Your task to perform on an android device: Open Chrome and go to settings Image 0: 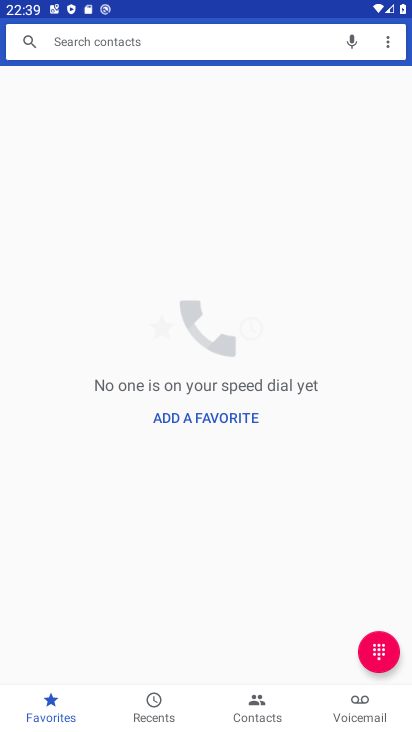
Step 0: drag from (224, 686) to (198, 325)
Your task to perform on an android device: Open Chrome and go to settings Image 1: 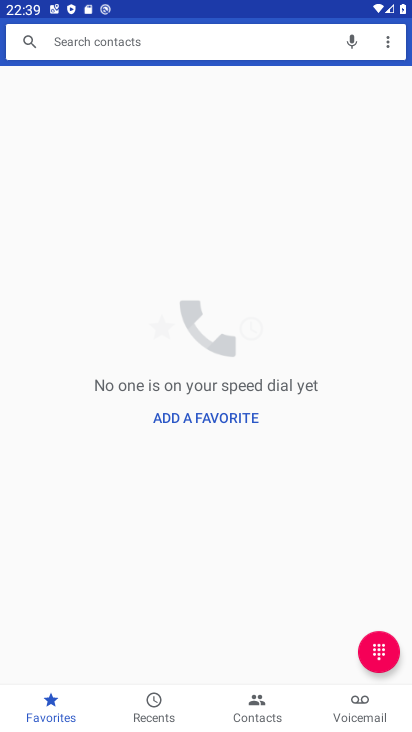
Step 1: press back button
Your task to perform on an android device: Open Chrome and go to settings Image 2: 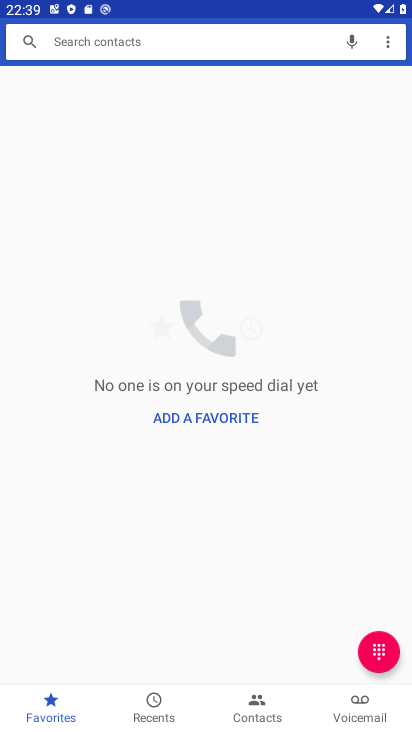
Step 2: press back button
Your task to perform on an android device: Open Chrome and go to settings Image 3: 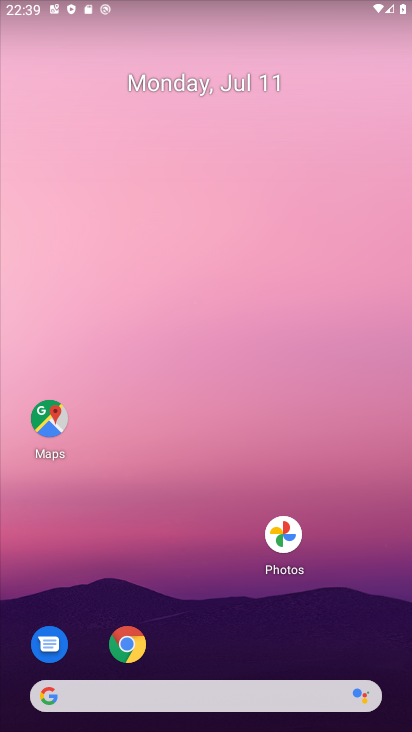
Step 3: drag from (269, 657) to (178, 175)
Your task to perform on an android device: Open Chrome and go to settings Image 4: 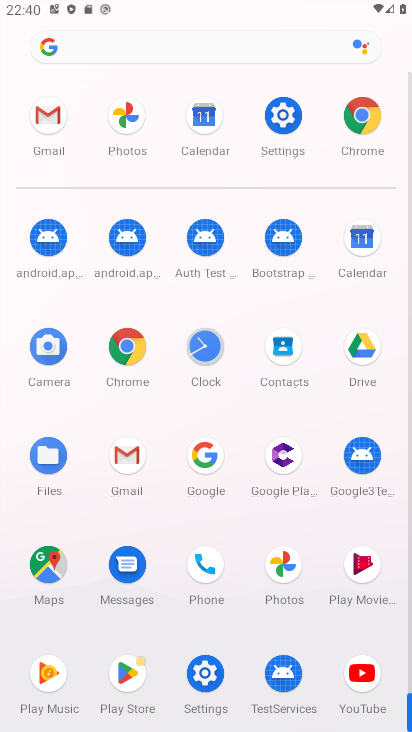
Step 4: click (274, 119)
Your task to perform on an android device: Open Chrome and go to settings Image 5: 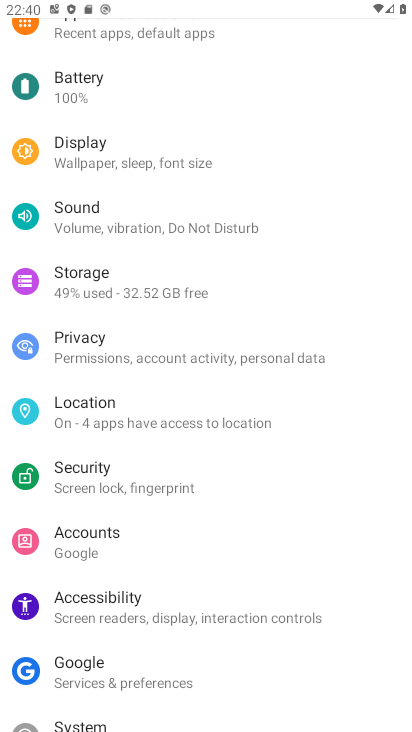
Step 5: drag from (139, 518) to (101, 165)
Your task to perform on an android device: Open Chrome and go to settings Image 6: 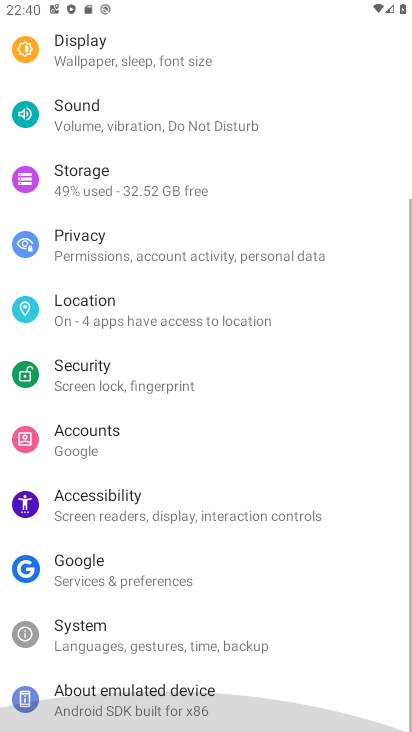
Step 6: drag from (202, 552) to (96, 99)
Your task to perform on an android device: Open Chrome and go to settings Image 7: 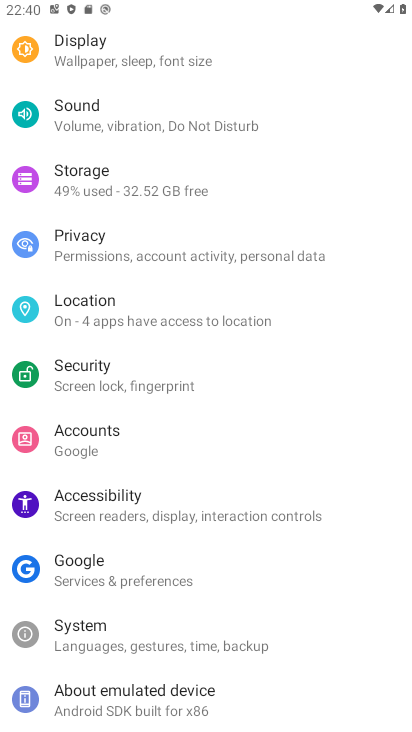
Step 7: drag from (177, 123) to (216, 548)
Your task to perform on an android device: Open Chrome and go to settings Image 8: 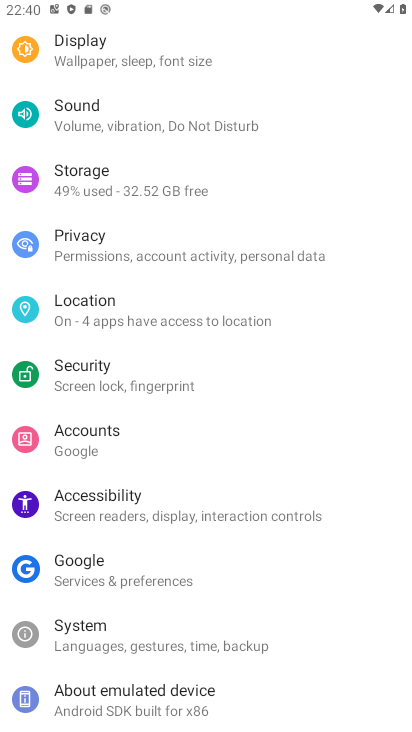
Step 8: drag from (85, 160) to (171, 518)
Your task to perform on an android device: Open Chrome and go to settings Image 9: 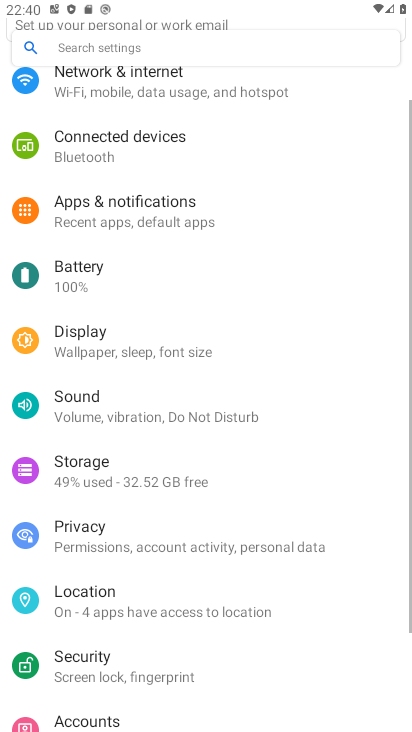
Step 9: drag from (107, 265) to (208, 731)
Your task to perform on an android device: Open Chrome and go to settings Image 10: 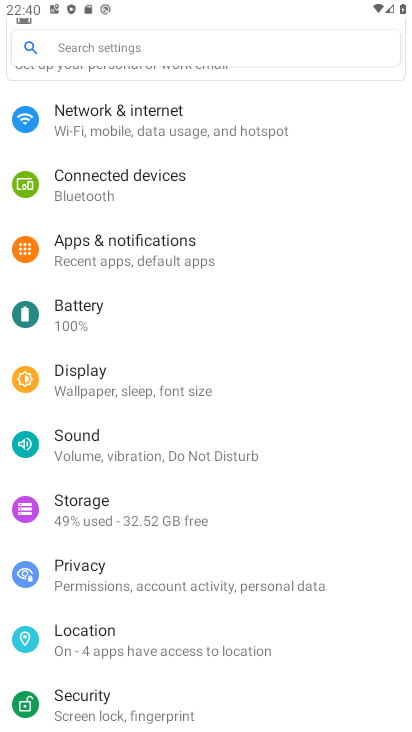
Step 10: press back button
Your task to perform on an android device: Open Chrome and go to settings Image 11: 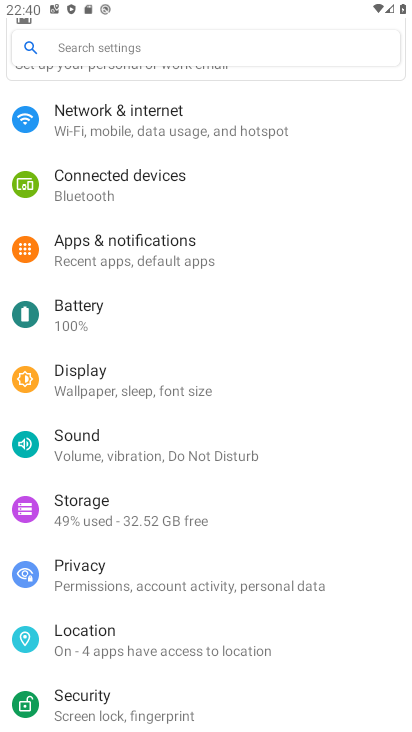
Step 11: press back button
Your task to perform on an android device: Open Chrome and go to settings Image 12: 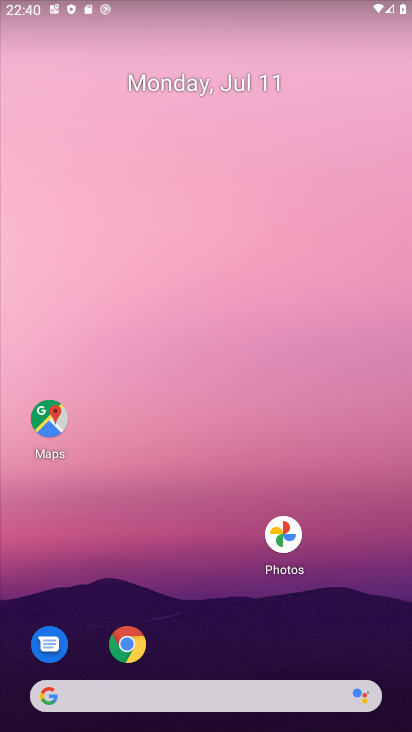
Step 12: drag from (172, 677) to (111, 111)
Your task to perform on an android device: Open Chrome and go to settings Image 13: 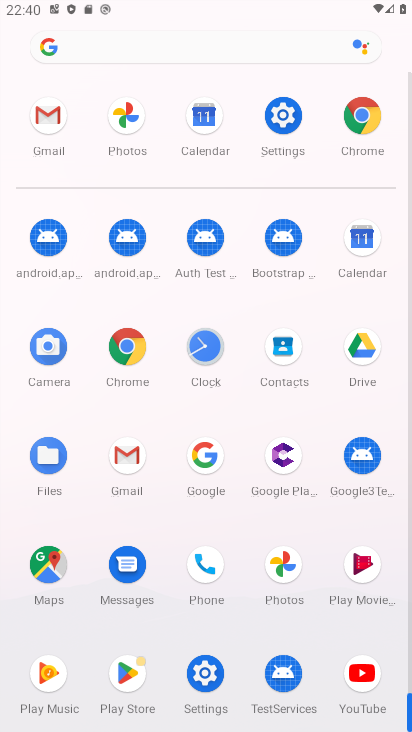
Step 13: click (206, 668)
Your task to perform on an android device: Open Chrome and go to settings Image 14: 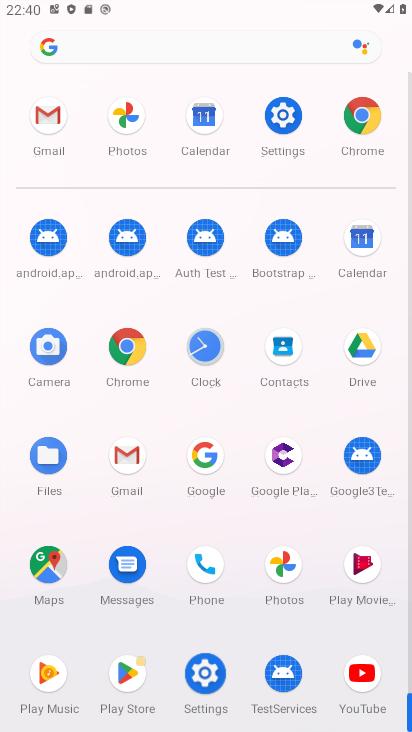
Step 14: click (206, 668)
Your task to perform on an android device: Open Chrome and go to settings Image 15: 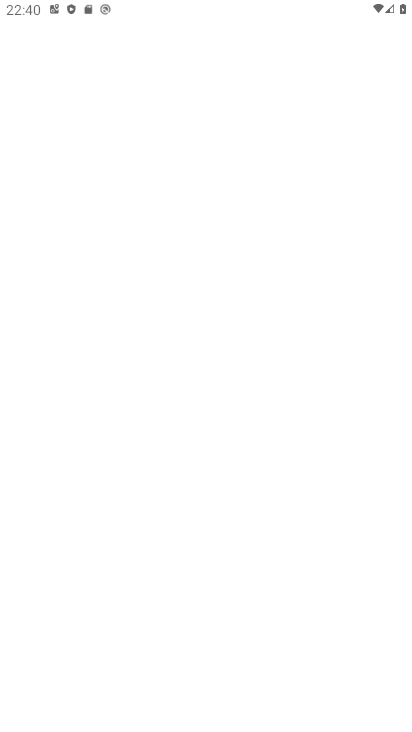
Step 15: click (206, 670)
Your task to perform on an android device: Open Chrome and go to settings Image 16: 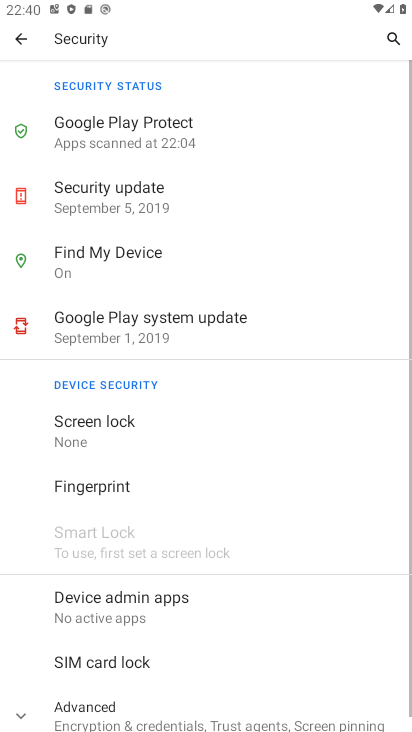
Step 16: click (19, 34)
Your task to perform on an android device: Open Chrome and go to settings Image 17: 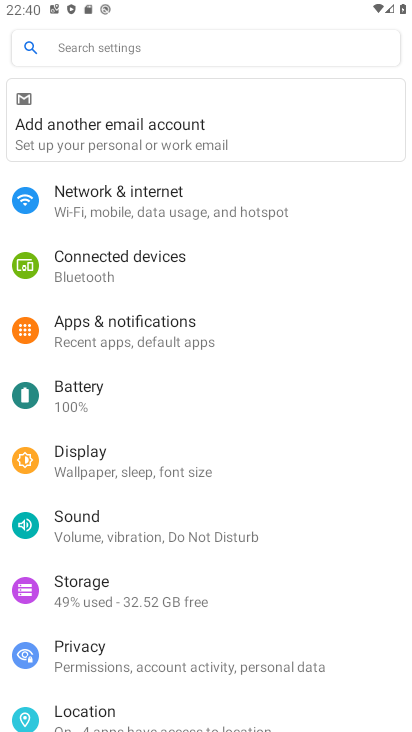
Step 17: press back button
Your task to perform on an android device: Open Chrome and go to settings Image 18: 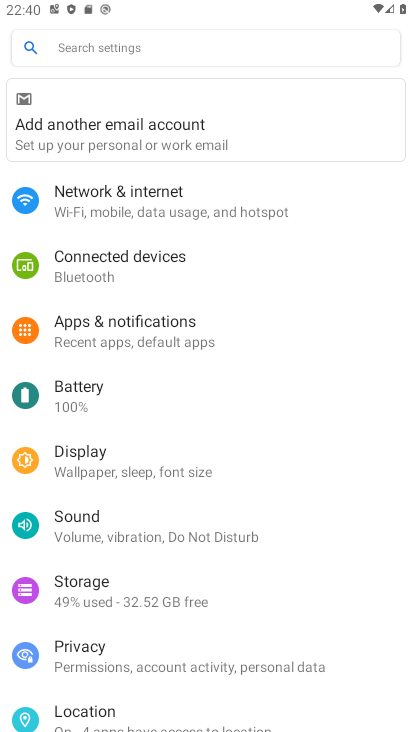
Step 18: press back button
Your task to perform on an android device: Open Chrome and go to settings Image 19: 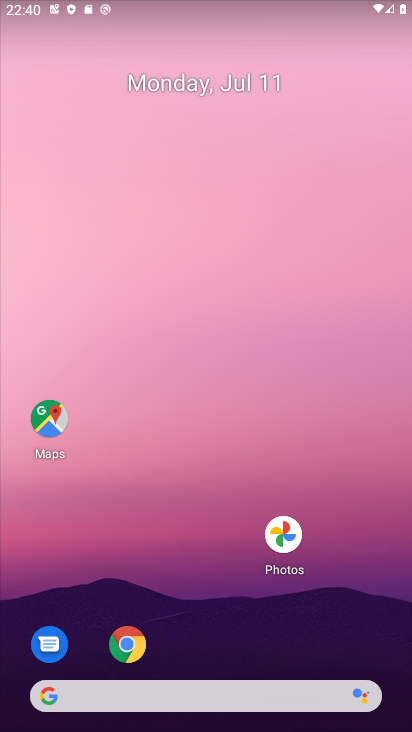
Step 19: drag from (237, 617) to (190, 67)
Your task to perform on an android device: Open Chrome and go to settings Image 20: 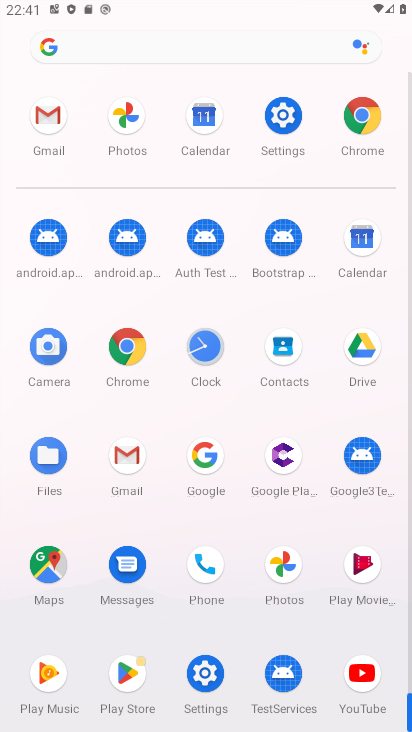
Step 20: click (115, 342)
Your task to perform on an android device: Open Chrome and go to settings Image 21: 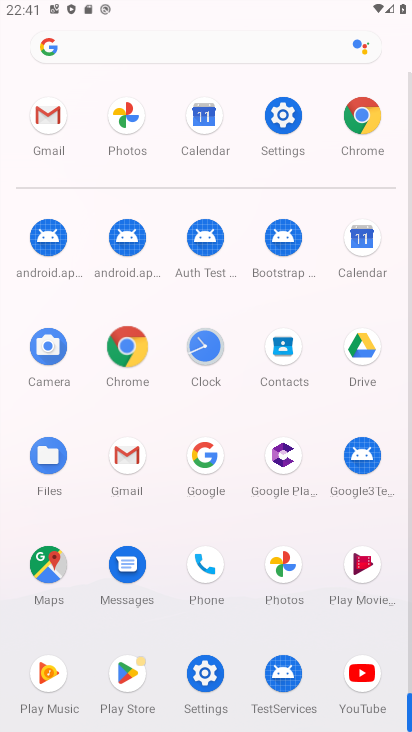
Step 21: click (115, 342)
Your task to perform on an android device: Open Chrome and go to settings Image 22: 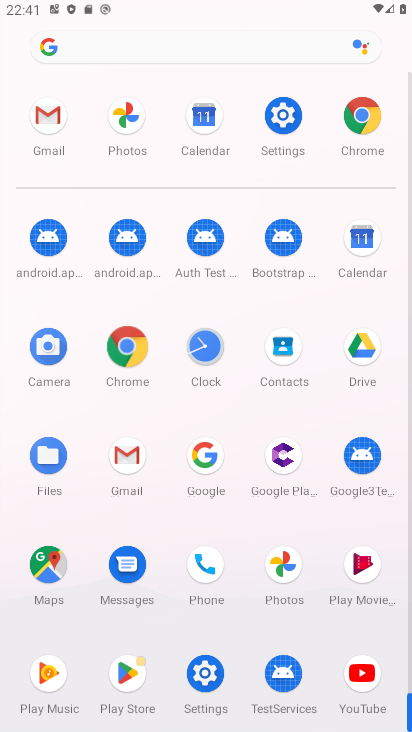
Step 22: click (115, 345)
Your task to perform on an android device: Open Chrome and go to settings Image 23: 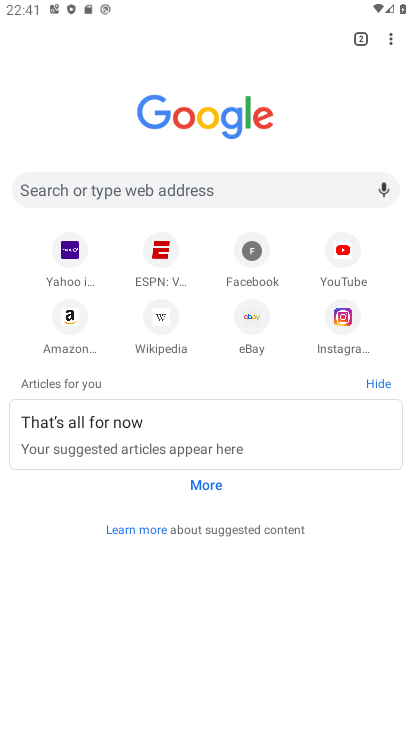
Step 23: click (390, 35)
Your task to perform on an android device: Open Chrome and go to settings Image 24: 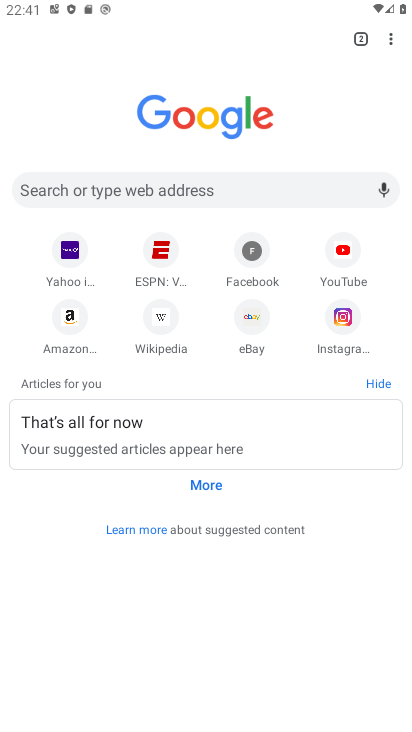
Step 24: click (390, 35)
Your task to perform on an android device: Open Chrome and go to settings Image 25: 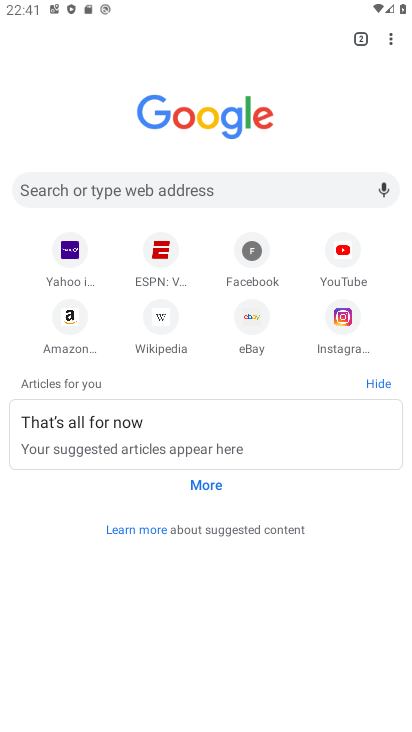
Step 25: click (391, 36)
Your task to perform on an android device: Open Chrome and go to settings Image 26: 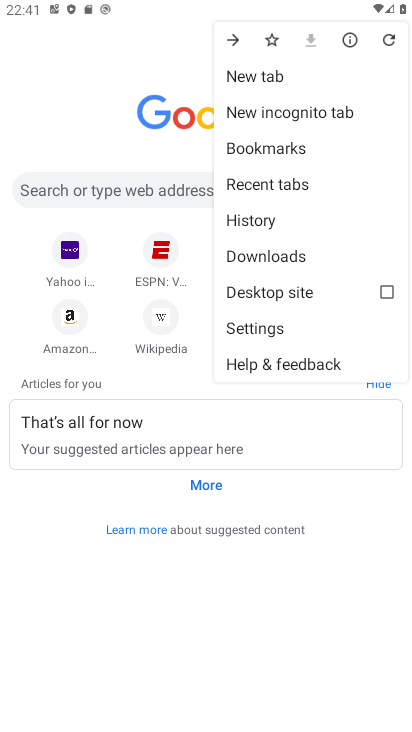
Step 26: click (267, 325)
Your task to perform on an android device: Open Chrome and go to settings Image 27: 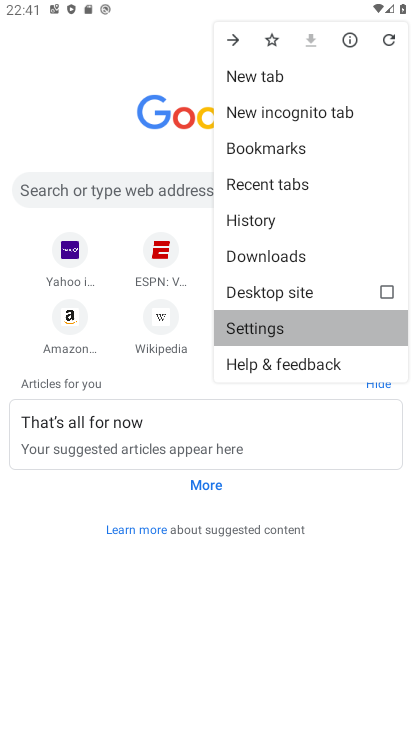
Step 27: click (267, 326)
Your task to perform on an android device: Open Chrome and go to settings Image 28: 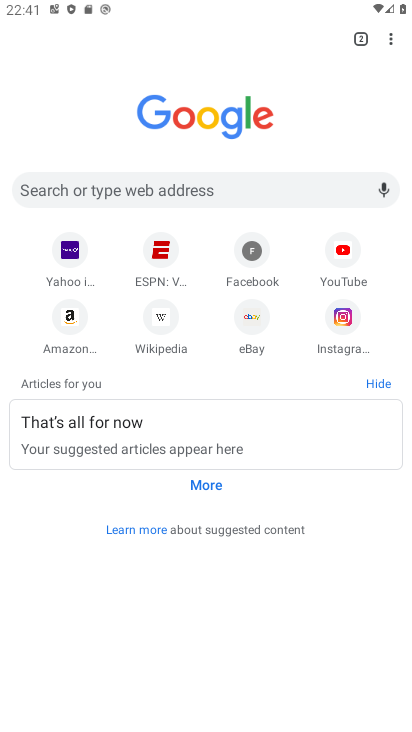
Step 28: click (267, 327)
Your task to perform on an android device: Open Chrome and go to settings Image 29: 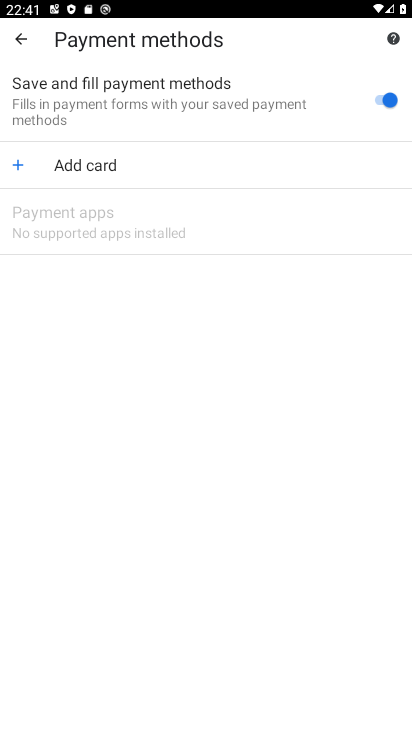
Step 29: task complete